Your task to perform on an android device: create a new album in the google photos Image 0: 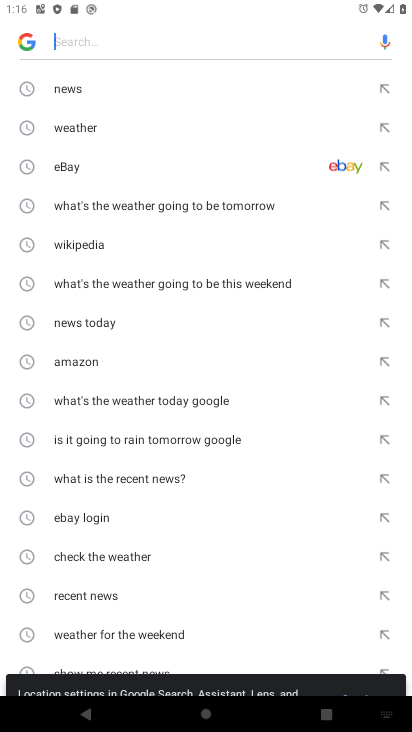
Step 0: press home button
Your task to perform on an android device: create a new album in the google photos Image 1: 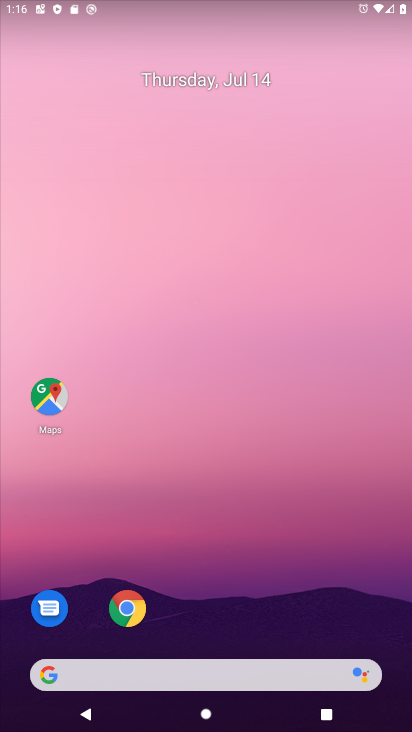
Step 1: drag from (230, 643) to (318, 97)
Your task to perform on an android device: create a new album in the google photos Image 2: 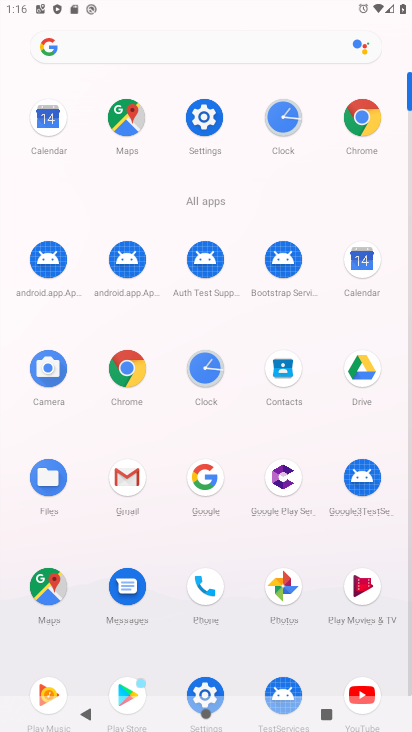
Step 2: click (275, 604)
Your task to perform on an android device: create a new album in the google photos Image 3: 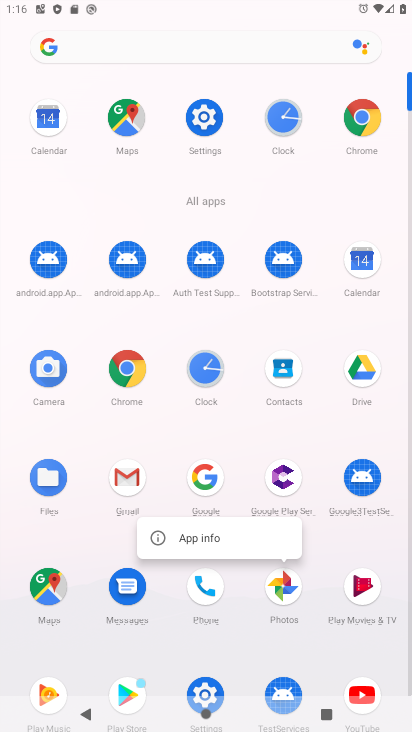
Step 3: click (275, 604)
Your task to perform on an android device: create a new album in the google photos Image 4: 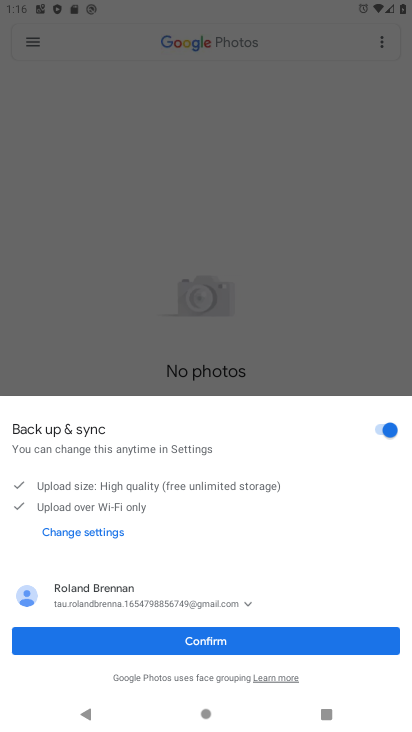
Step 4: click (169, 644)
Your task to perform on an android device: create a new album in the google photos Image 5: 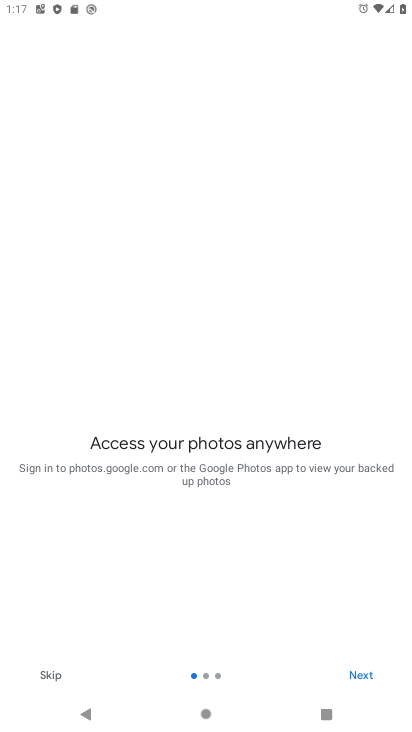
Step 5: click (357, 671)
Your task to perform on an android device: create a new album in the google photos Image 6: 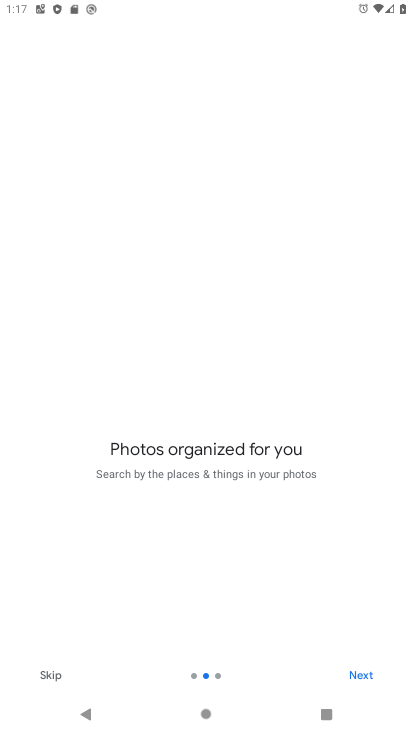
Step 6: click (361, 674)
Your task to perform on an android device: create a new album in the google photos Image 7: 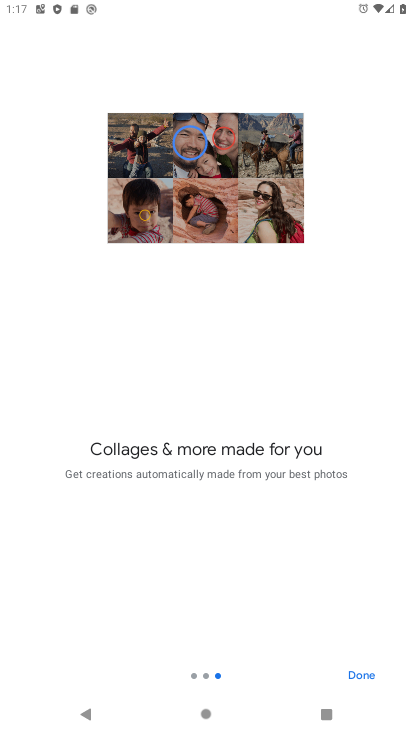
Step 7: click (361, 674)
Your task to perform on an android device: create a new album in the google photos Image 8: 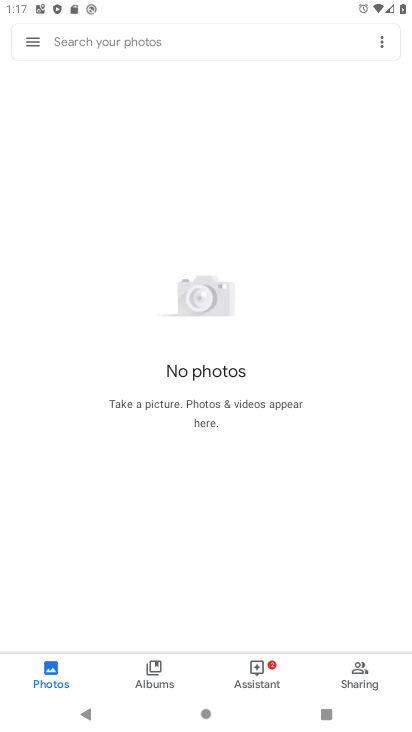
Step 8: click (178, 673)
Your task to perform on an android device: create a new album in the google photos Image 9: 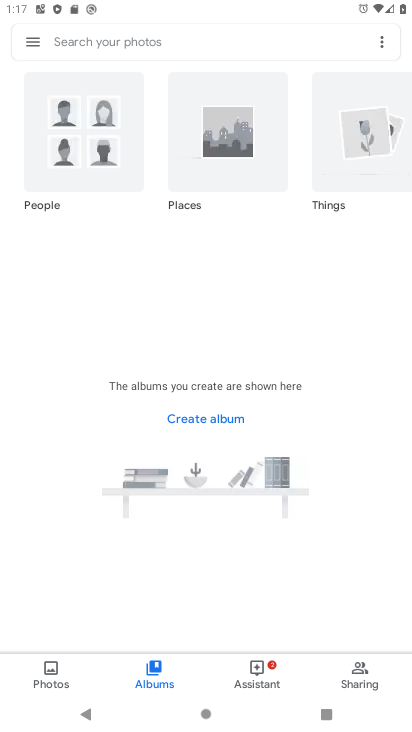
Step 9: task complete